Your task to perform on an android device: What is the recent news? Image 0: 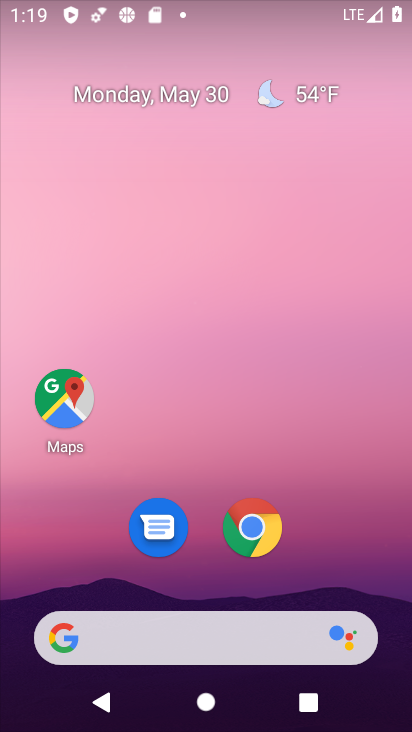
Step 0: drag from (3, 298) to (373, 203)
Your task to perform on an android device: What is the recent news? Image 1: 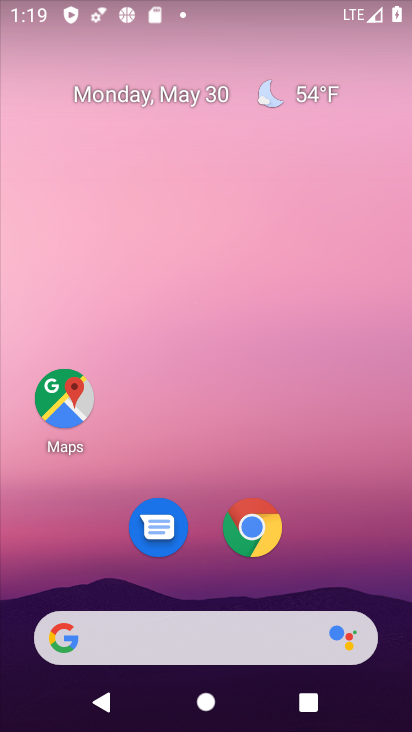
Step 1: task complete